Your task to perform on an android device: all mails in gmail Image 0: 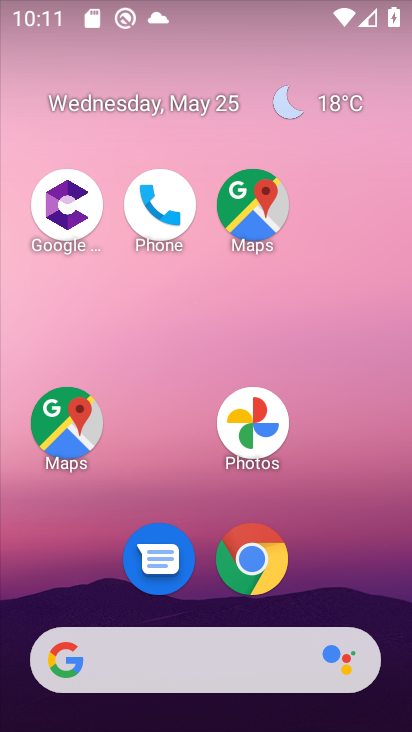
Step 0: drag from (337, 597) to (343, 88)
Your task to perform on an android device: all mails in gmail Image 1: 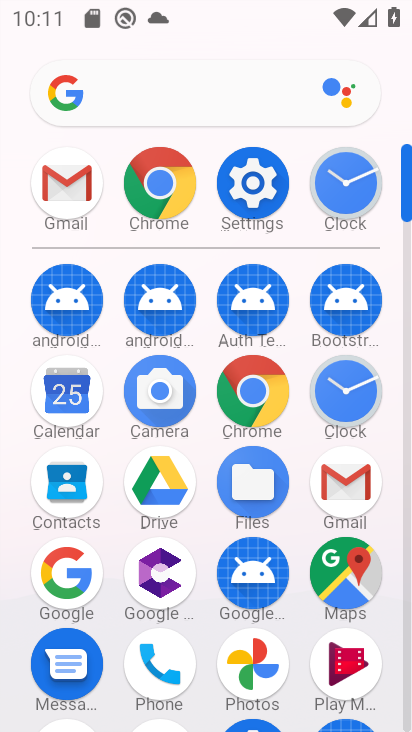
Step 1: click (58, 194)
Your task to perform on an android device: all mails in gmail Image 2: 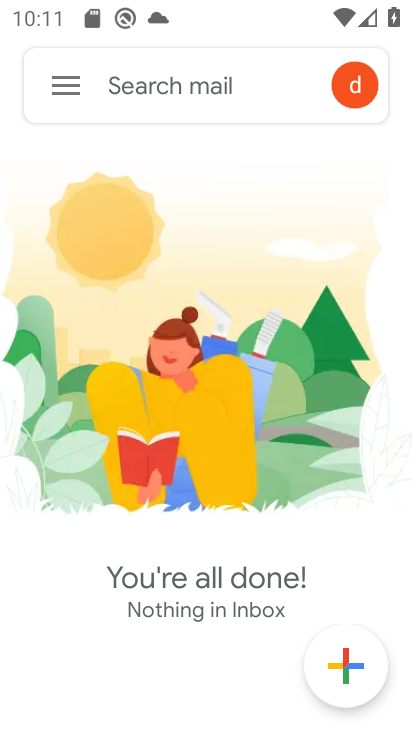
Step 2: click (62, 78)
Your task to perform on an android device: all mails in gmail Image 3: 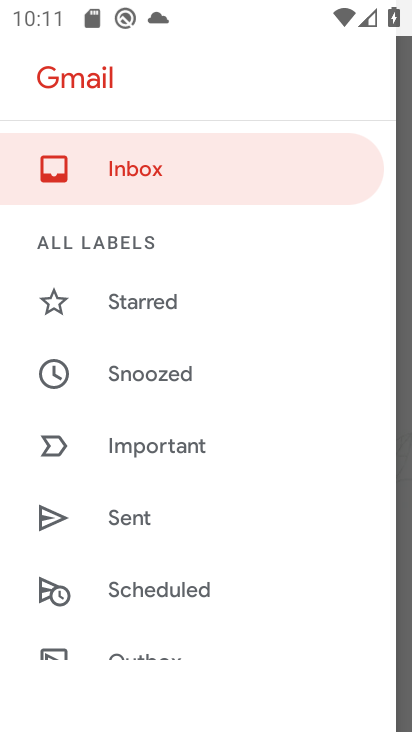
Step 3: drag from (255, 587) to (279, 175)
Your task to perform on an android device: all mails in gmail Image 4: 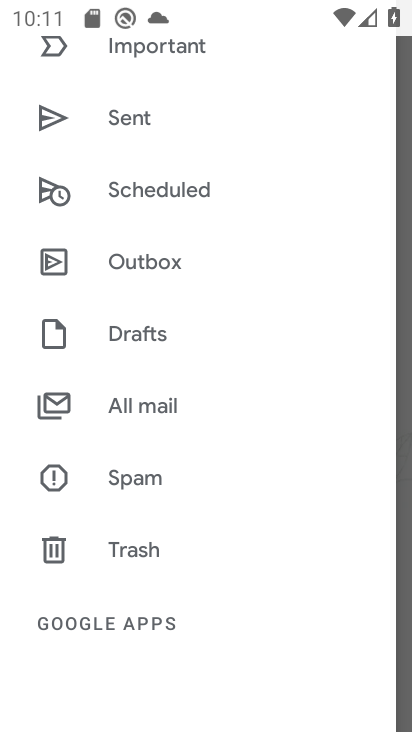
Step 4: click (162, 407)
Your task to perform on an android device: all mails in gmail Image 5: 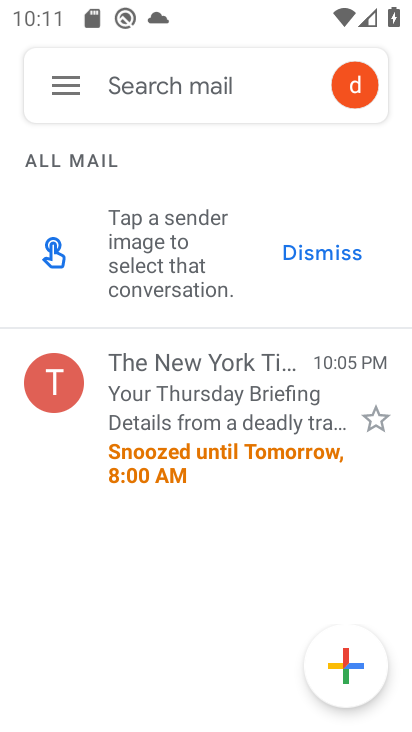
Step 5: task complete